Your task to perform on an android device: Open Maps and search for coffee Image 0: 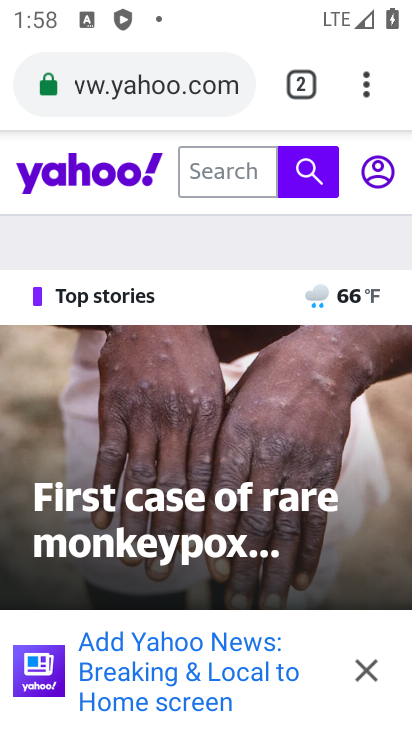
Step 0: press home button
Your task to perform on an android device: Open Maps and search for coffee Image 1: 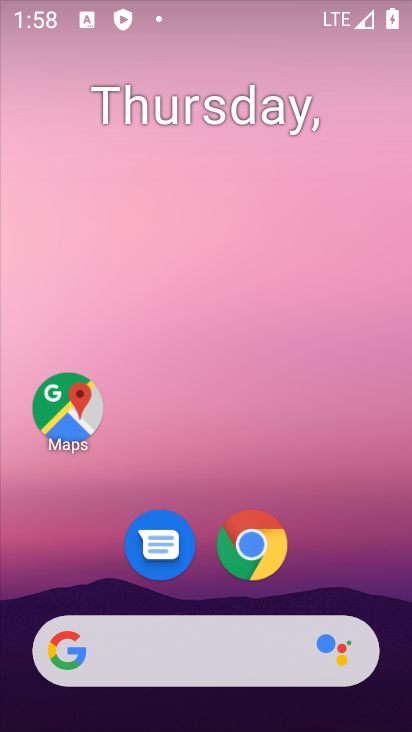
Step 1: drag from (191, 584) to (182, 62)
Your task to perform on an android device: Open Maps and search for coffee Image 2: 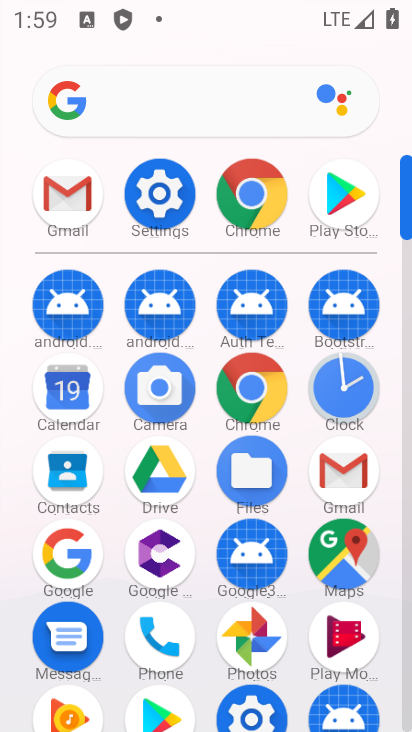
Step 2: click (360, 541)
Your task to perform on an android device: Open Maps and search for coffee Image 3: 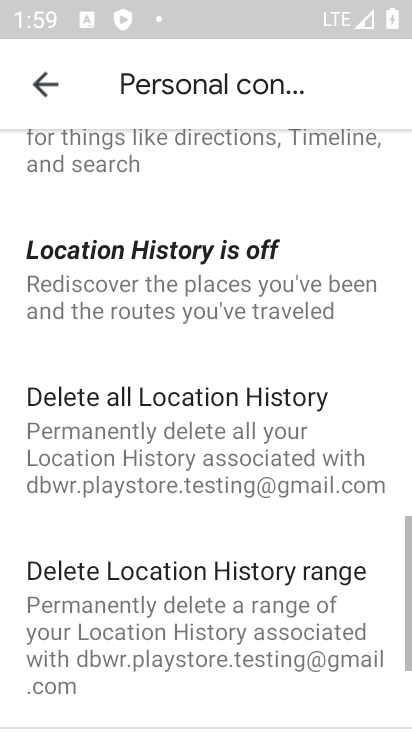
Step 3: press back button
Your task to perform on an android device: Open Maps and search for coffee Image 4: 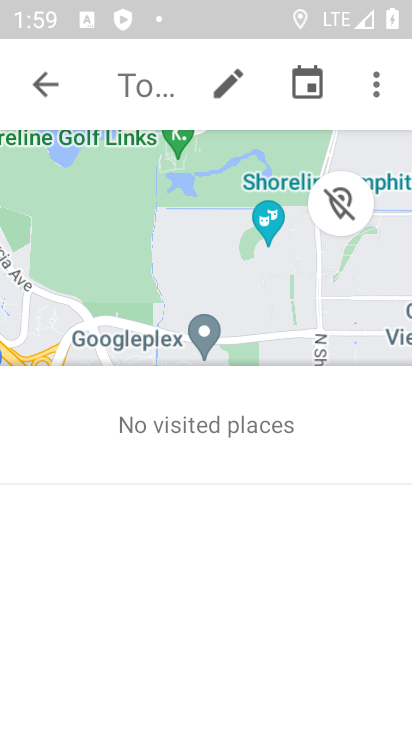
Step 4: press back button
Your task to perform on an android device: Open Maps and search for coffee Image 5: 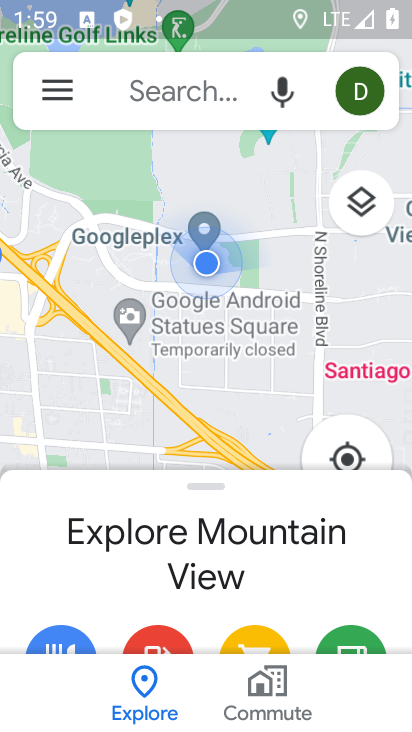
Step 5: click (180, 90)
Your task to perform on an android device: Open Maps and search for coffee Image 6: 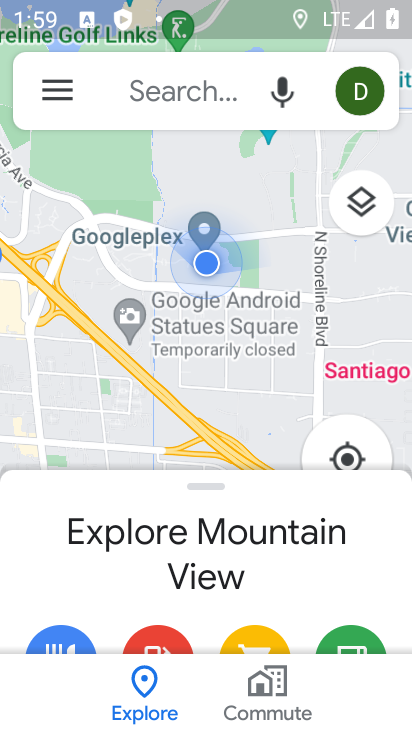
Step 6: click (180, 90)
Your task to perform on an android device: Open Maps and search for coffee Image 7: 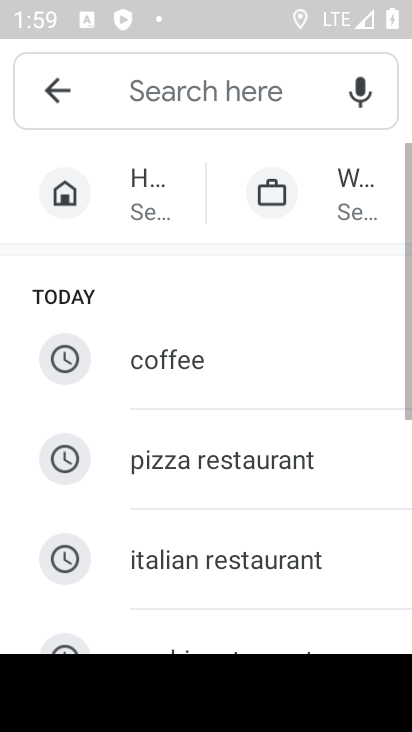
Step 7: click (247, 379)
Your task to perform on an android device: Open Maps and search for coffee Image 8: 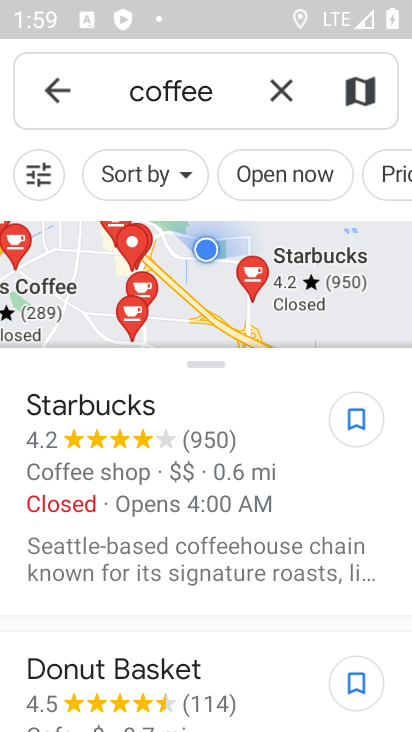
Step 8: task complete